Your task to perform on an android device: change alarm snooze length Image 0: 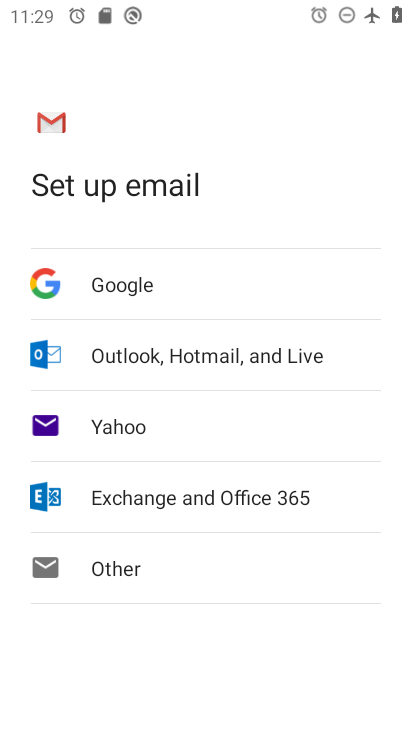
Step 0: press home button
Your task to perform on an android device: change alarm snooze length Image 1: 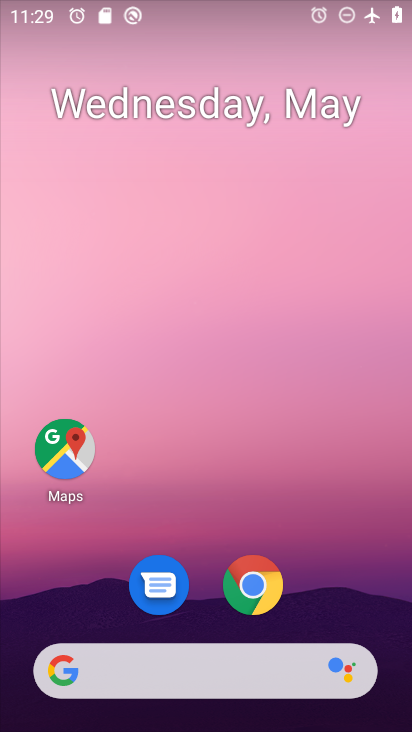
Step 1: drag from (327, 559) to (272, 86)
Your task to perform on an android device: change alarm snooze length Image 2: 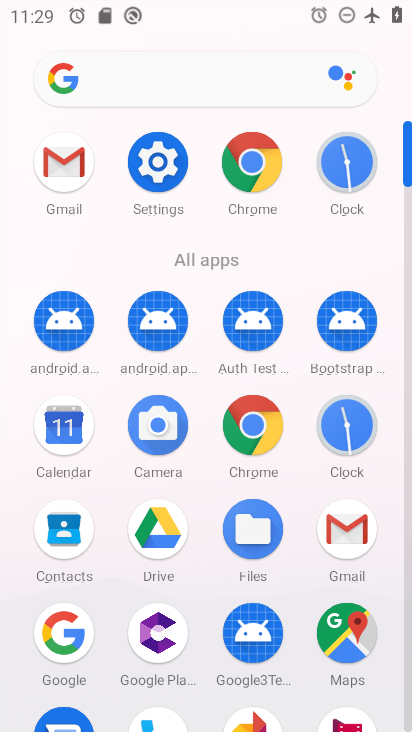
Step 2: click (336, 164)
Your task to perform on an android device: change alarm snooze length Image 3: 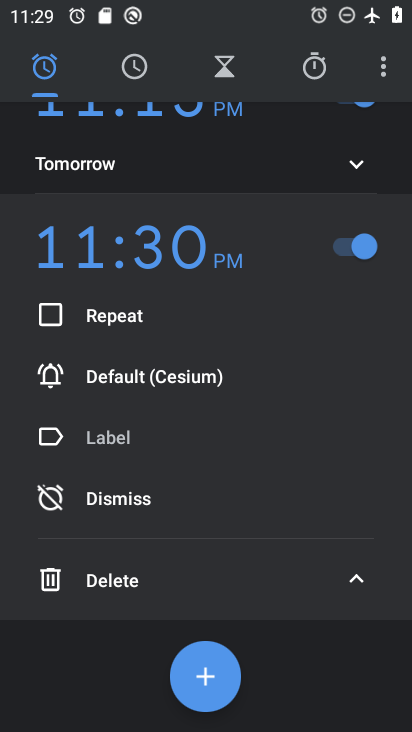
Step 3: click (130, 63)
Your task to perform on an android device: change alarm snooze length Image 4: 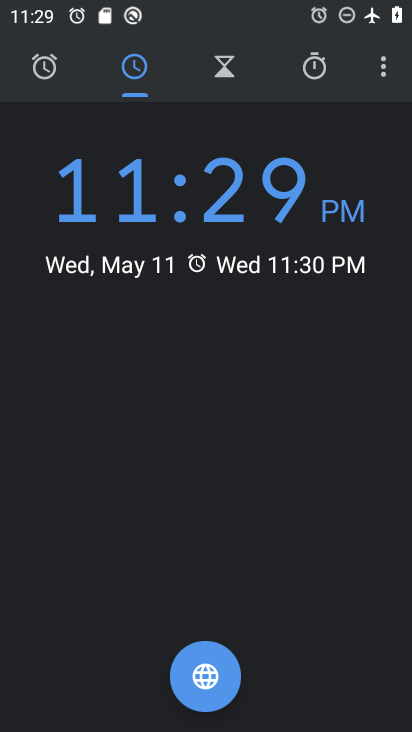
Step 4: click (381, 65)
Your task to perform on an android device: change alarm snooze length Image 5: 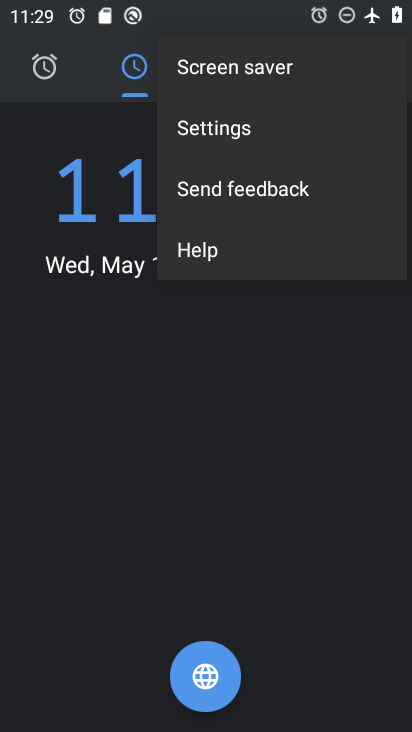
Step 5: click (272, 133)
Your task to perform on an android device: change alarm snooze length Image 6: 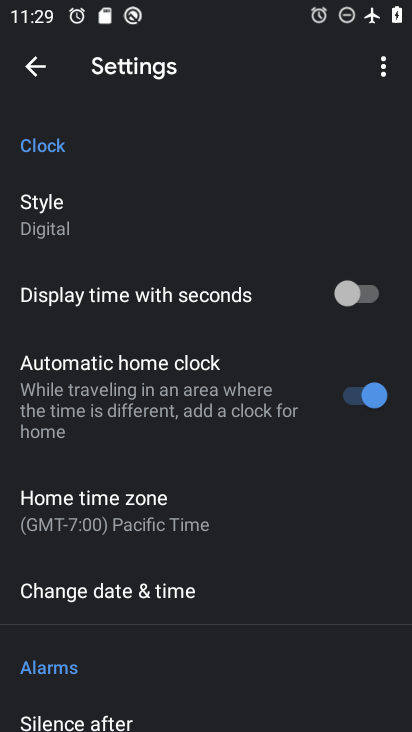
Step 6: drag from (250, 512) to (211, 146)
Your task to perform on an android device: change alarm snooze length Image 7: 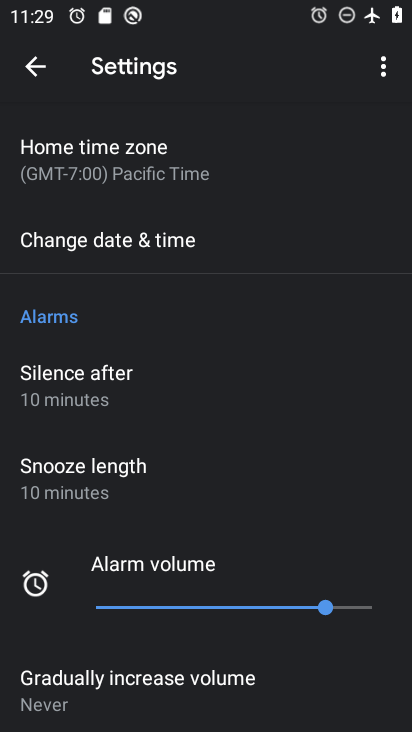
Step 7: click (111, 470)
Your task to perform on an android device: change alarm snooze length Image 8: 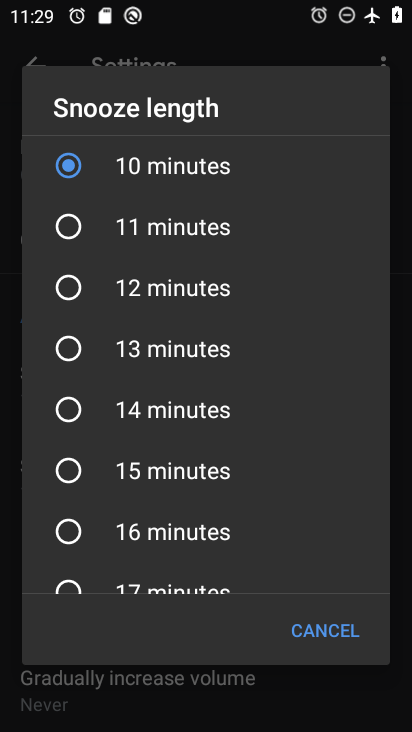
Step 8: click (61, 280)
Your task to perform on an android device: change alarm snooze length Image 9: 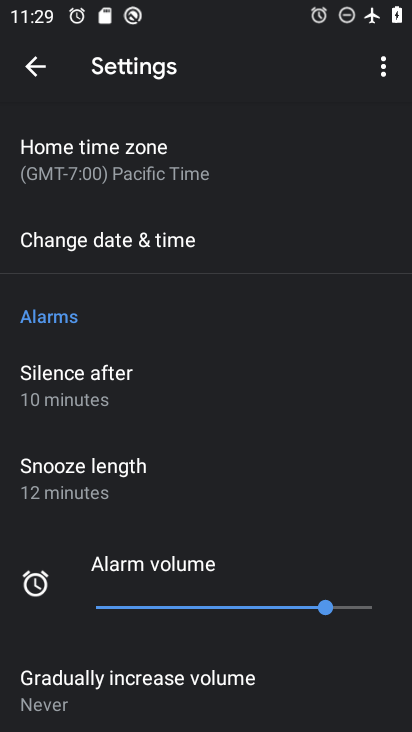
Step 9: task complete